Your task to perform on an android device: open a new tab in the chrome app Image 0: 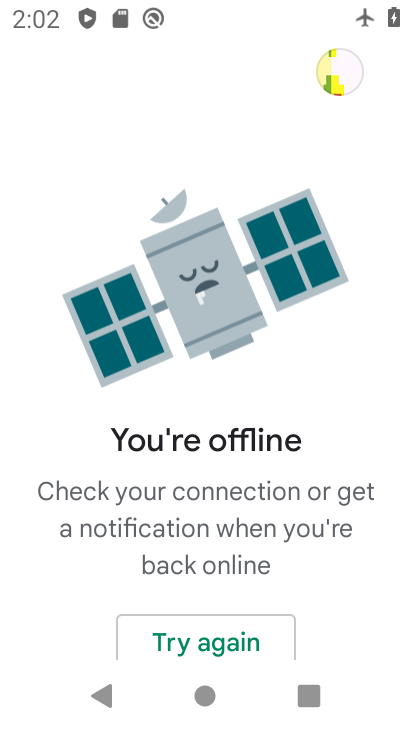
Step 0: press home button
Your task to perform on an android device: open a new tab in the chrome app Image 1: 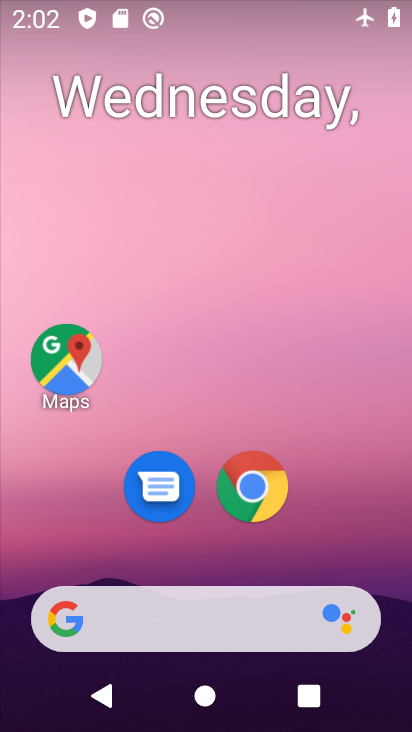
Step 1: click (262, 491)
Your task to perform on an android device: open a new tab in the chrome app Image 2: 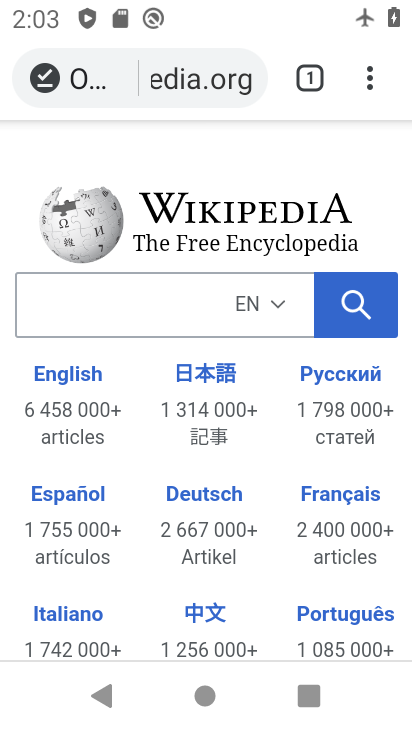
Step 2: click (373, 89)
Your task to perform on an android device: open a new tab in the chrome app Image 3: 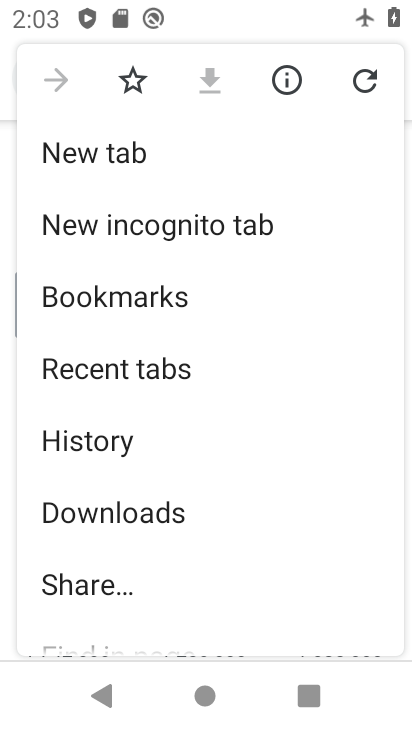
Step 3: click (178, 176)
Your task to perform on an android device: open a new tab in the chrome app Image 4: 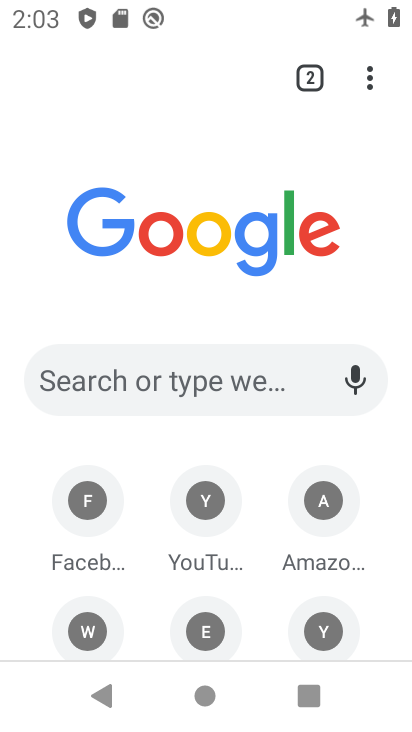
Step 4: task complete